Your task to perform on an android device: View the shopping cart on walmart.com. Search for apple airpods on walmart.com, select the first entry, and add it to the cart. Image 0: 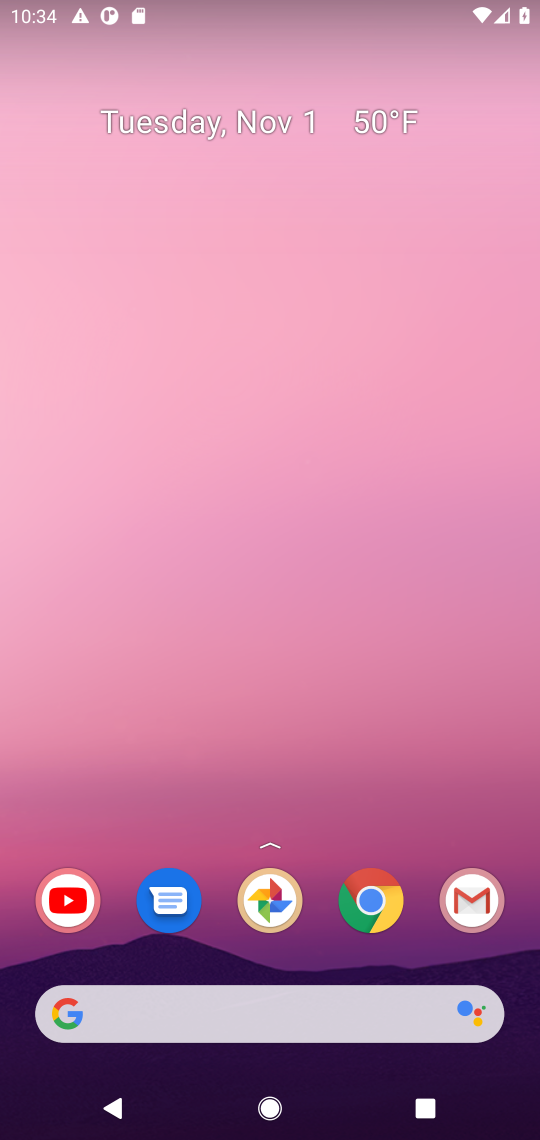
Step 0: click (386, 907)
Your task to perform on an android device: View the shopping cart on walmart.com. Search for apple airpods on walmart.com, select the first entry, and add it to the cart. Image 1: 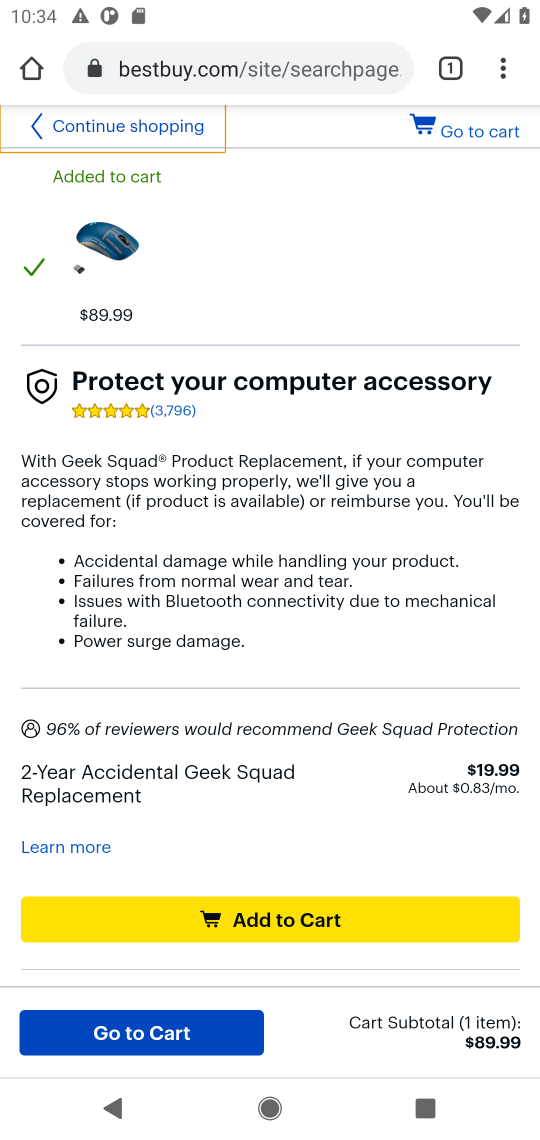
Step 1: click (188, 56)
Your task to perform on an android device: View the shopping cart on walmart.com. Search for apple airpods on walmart.com, select the first entry, and add it to the cart. Image 2: 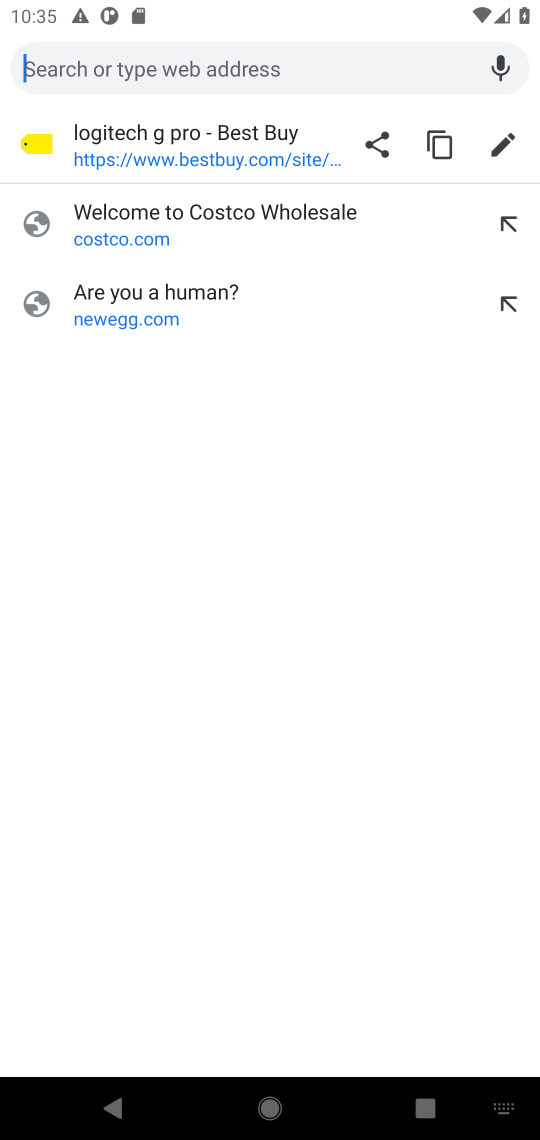
Step 2: type "walmart"
Your task to perform on an android device: View the shopping cart on walmart.com. Search for apple airpods on walmart.com, select the first entry, and add it to the cart. Image 3: 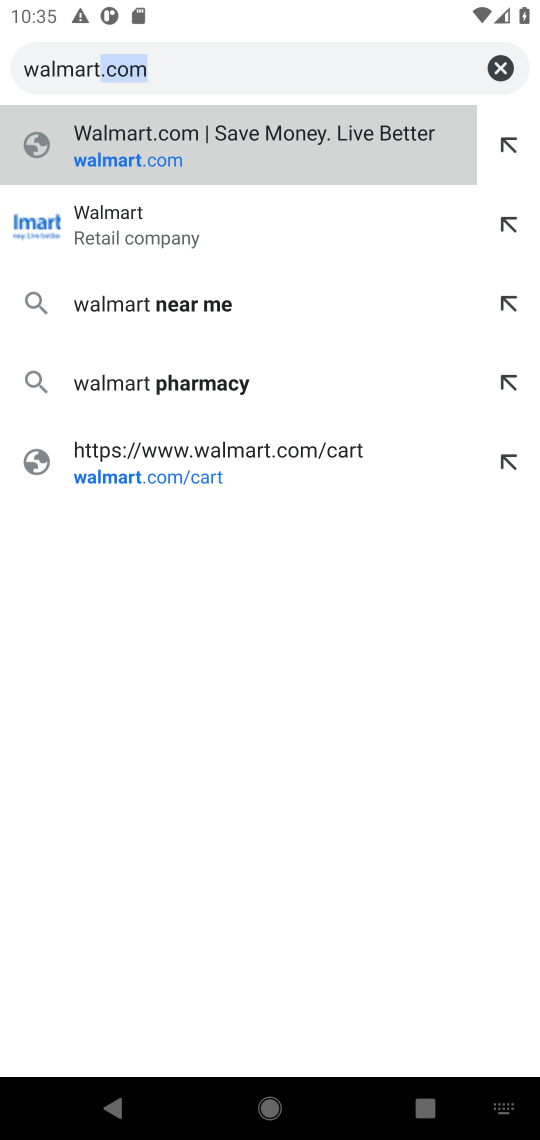
Step 3: click (123, 218)
Your task to perform on an android device: View the shopping cart on walmart.com. Search for apple airpods on walmart.com, select the first entry, and add it to the cart. Image 4: 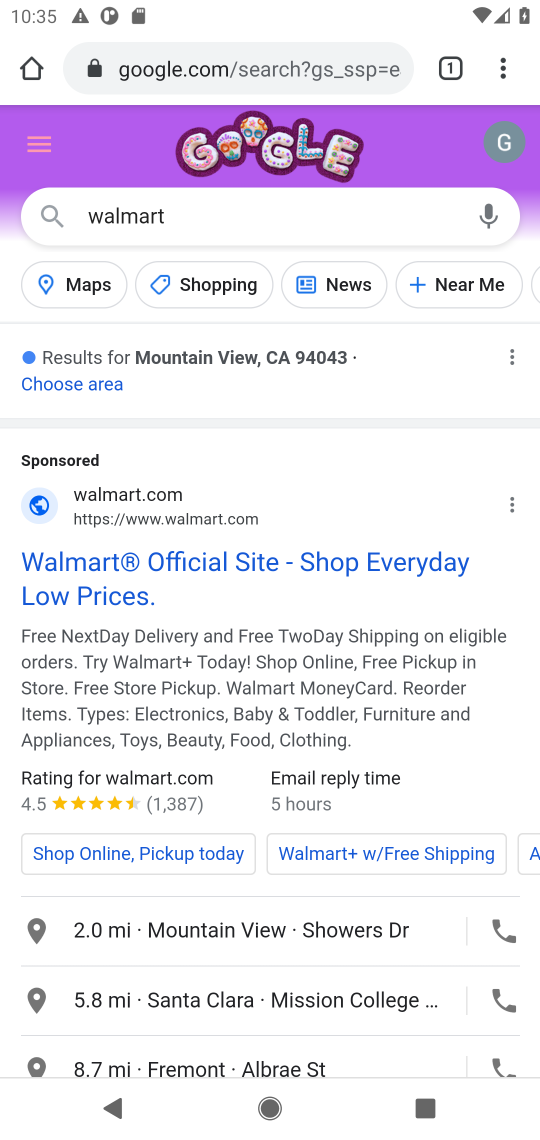
Step 4: click (120, 579)
Your task to perform on an android device: View the shopping cart on walmart.com. Search for apple airpods on walmart.com, select the first entry, and add it to the cart. Image 5: 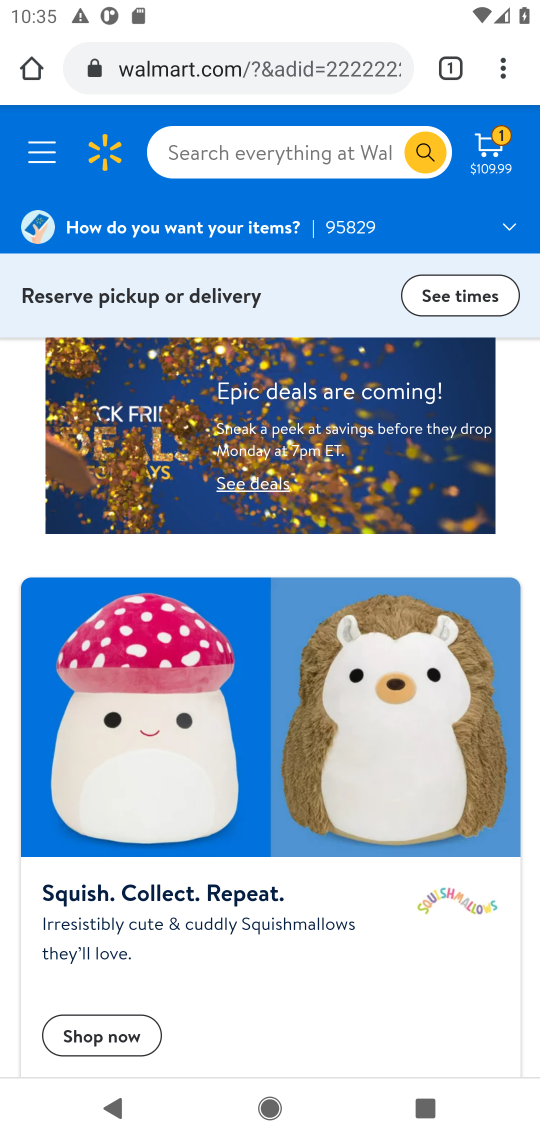
Step 5: click (485, 140)
Your task to perform on an android device: View the shopping cart on walmart.com. Search for apple airpods on walmart.com, select the first entry, and add it to the cart. Image 6: 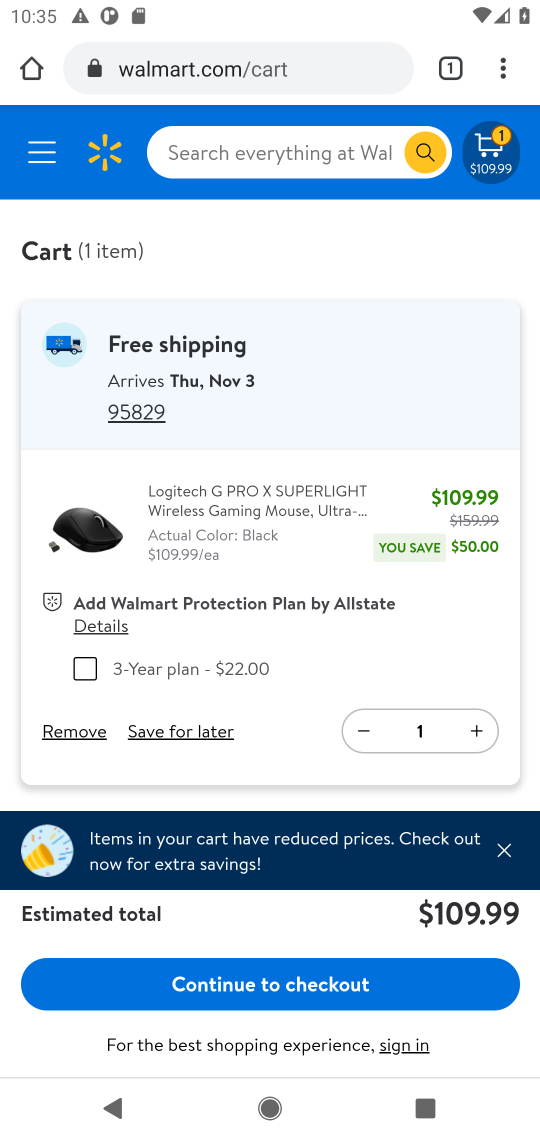
Step 6: click (328, 153)
Your task to perform on an android device: View the shopping cart on walmart.com. Search for apple airpods on walmart.com, select the first entry, and add it to the cart. Image 7: 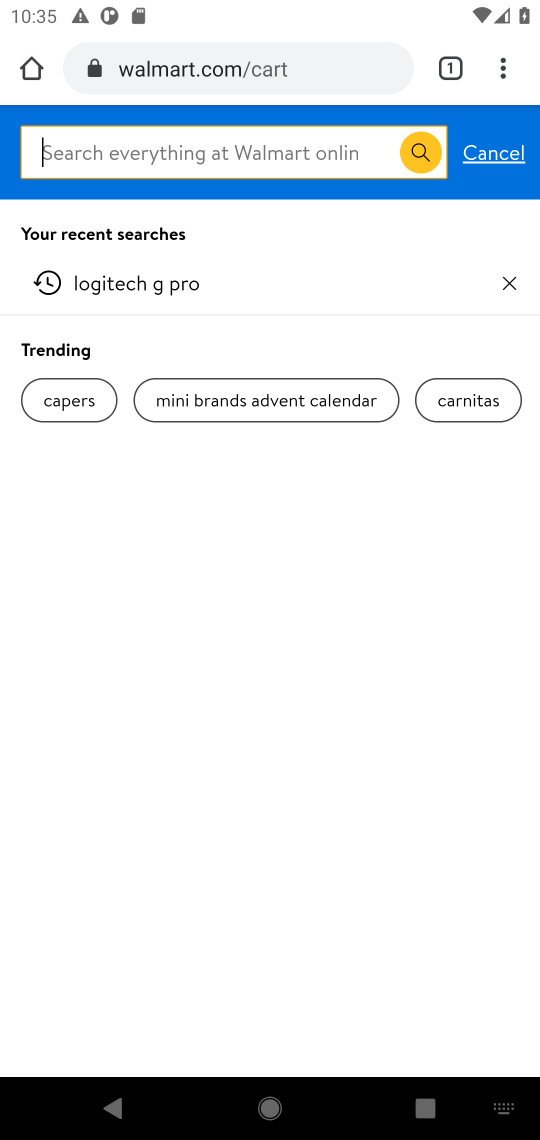
Step 7: type "apple airpods"
Your task to perform on an android device: View the shopping cart on walmart.com. Search for apple airpods on walmart.com, select the first entry, and add it to the cart. Image 8: 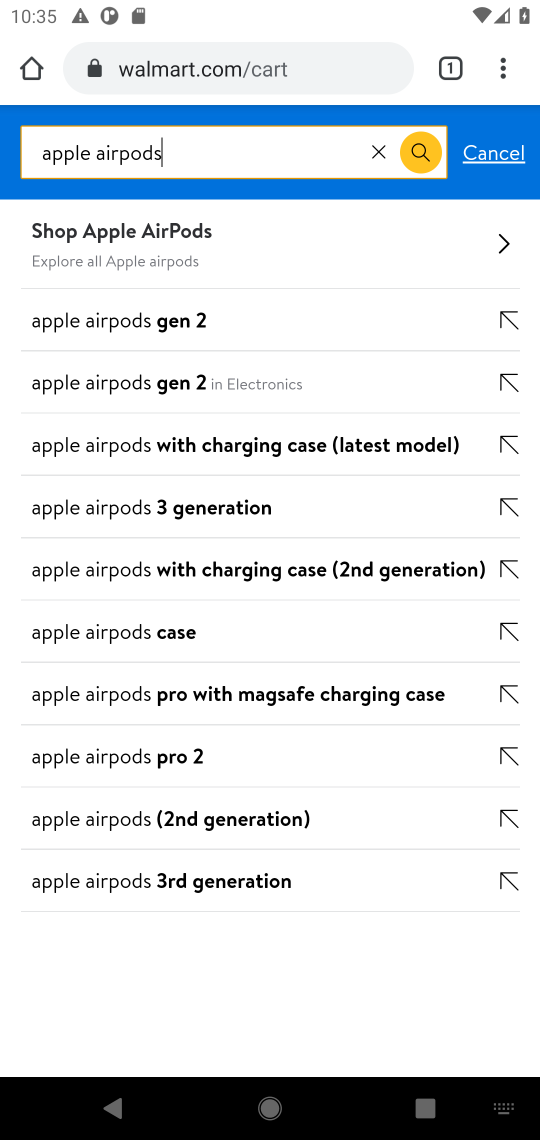
Step 8: type ""
Your task to perform on an android device: View the shopping cart on walmart.com. Search for apple airpods on walmart.com, select the first entry, and add it to the cart. Image 9: 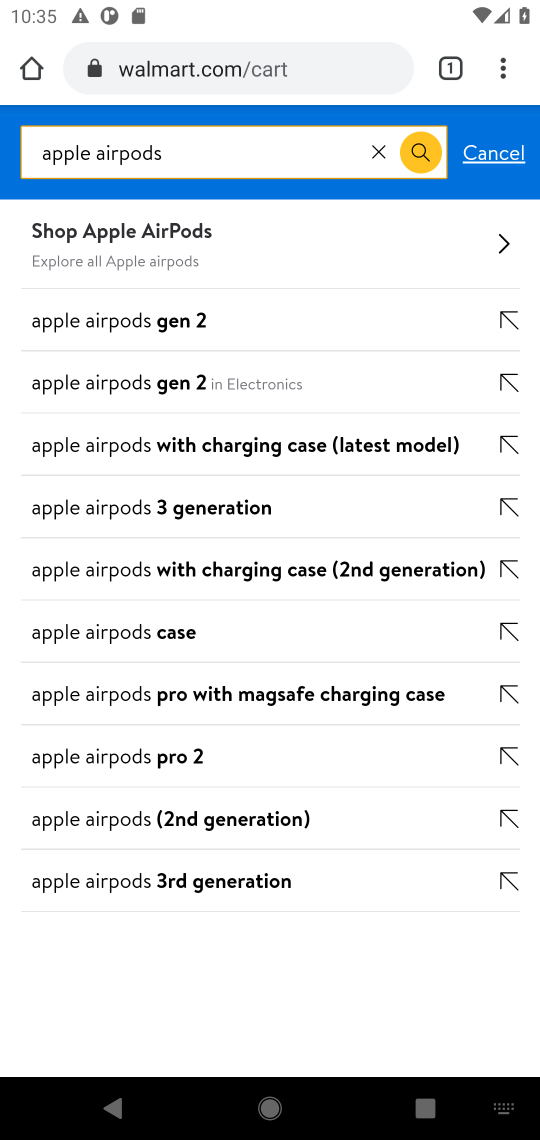
Step 9: click (413, 139)
Your task to perform on an android device: View the shopping cart on walmart.com. Search for apple airpods on walmart.com, select the first entry, and add it to the cart. Image 10: 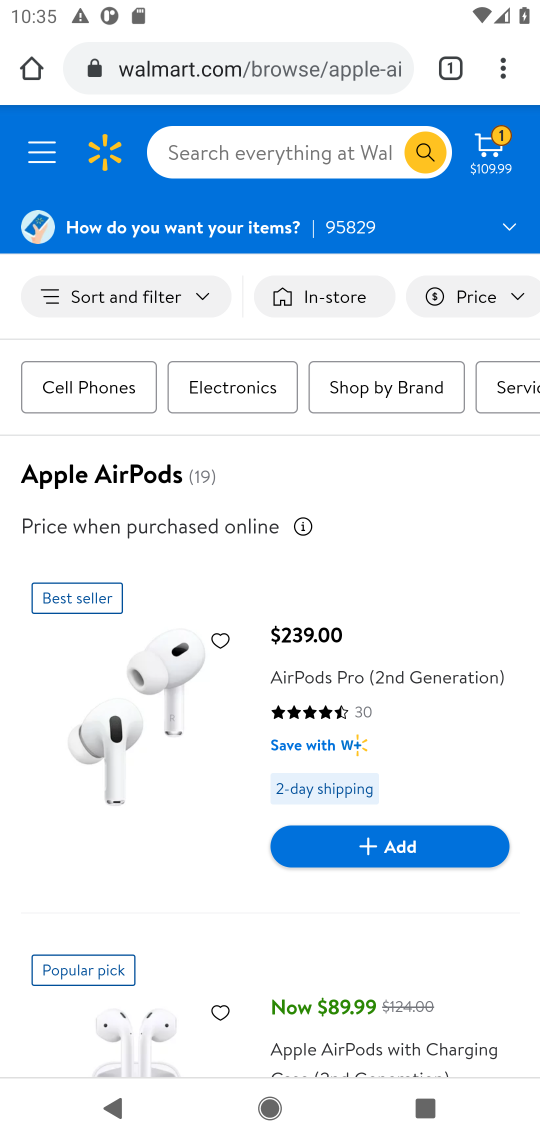
Step 10: click (359, 833)
Your task to perform on an android device: View the shopping cart on walmart.com. Search for apple airpods on walmart.com, select the first entry, and add it to the cart. Image 11: 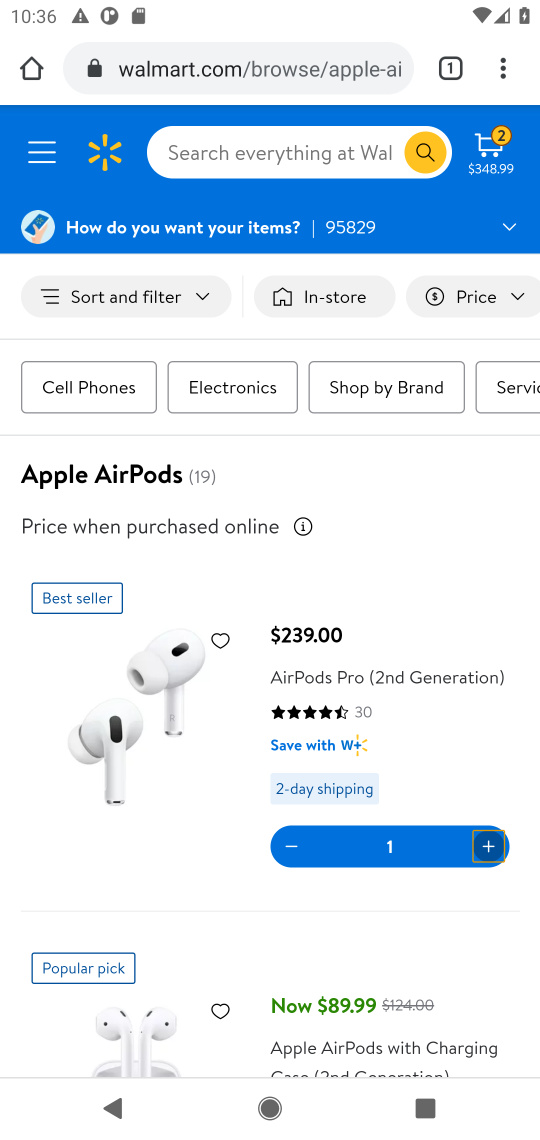
Step 11: task complete